Your task to perform on an android device: change the clock display to analog Image 0: 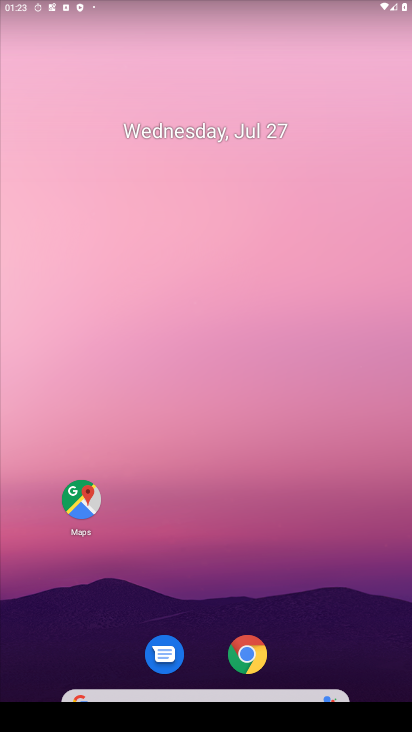
Step 0: drag from (205, 699) to (263, 144)
Your task to perform on an android device: change the clock display to analog Image 1: 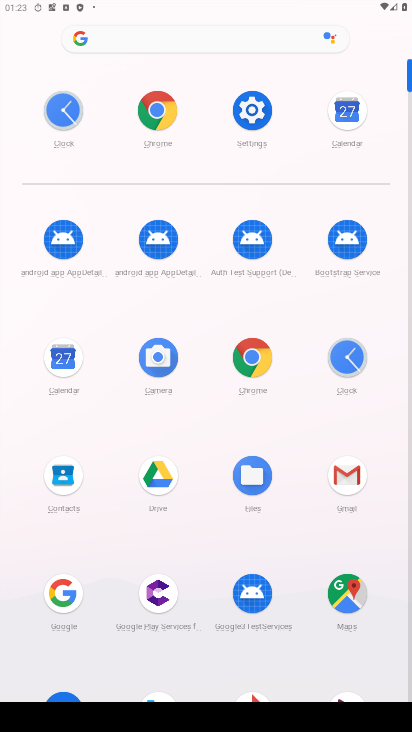
Step 1: click (342, 363)
Your task to perform on an android device: change the clock display to analog Image 2: 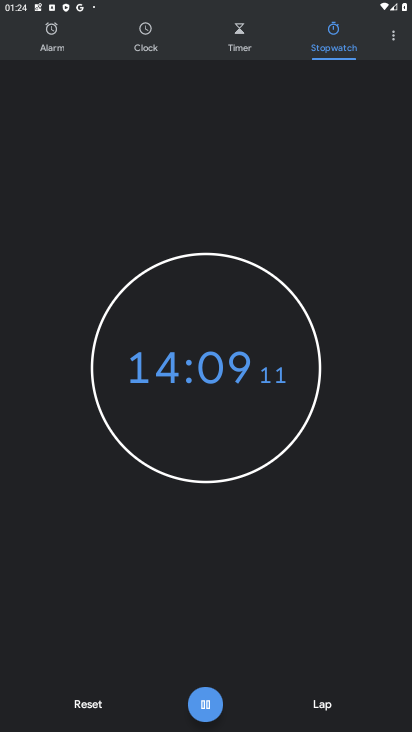
Step 2: click (382, 20)
Your task to perform on an android device: change the clock display to analog Image 3: 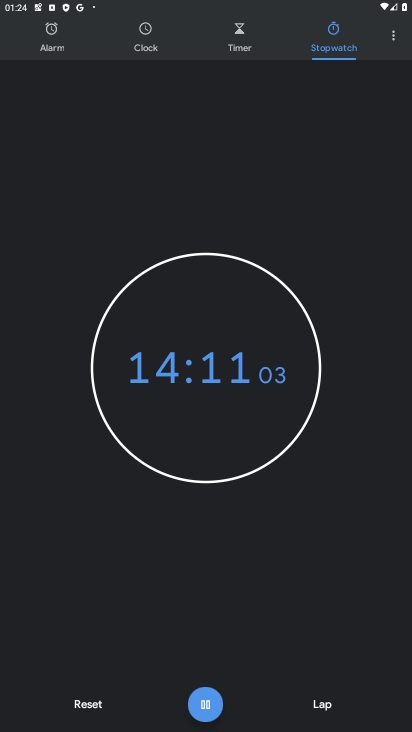
Step 3: click (396, 36)
Your task to perform on an android device: change the clock display to analog Image 4: 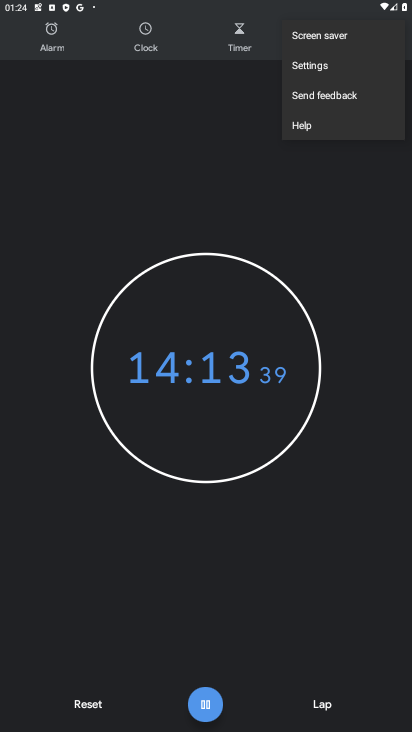
Step 4: click (327, 61)
Your task to perform on an android device: change the clock display to analog Image 5: 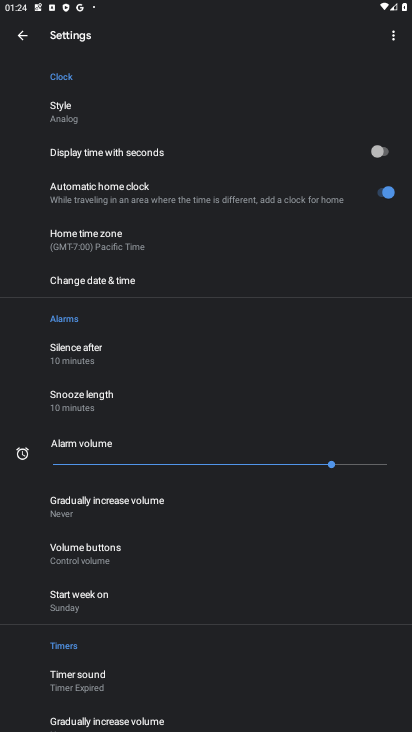
Step 5: click (70, 109)
Your task to perform on an android device: change the clock display to analog Image 6: 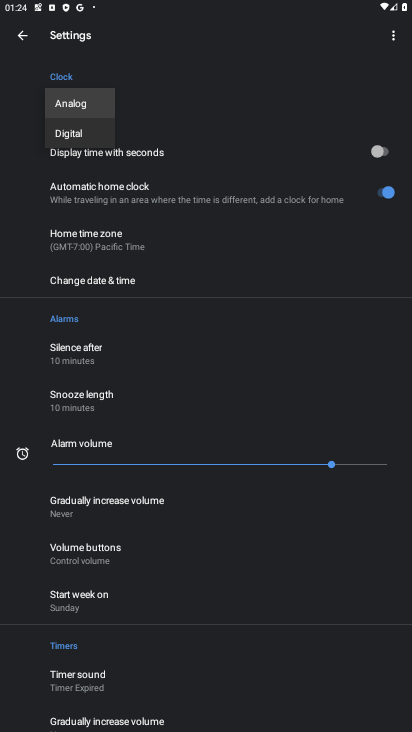
Step 6: task complete